Your task to perform on an android device: Open battery settings Image 0: 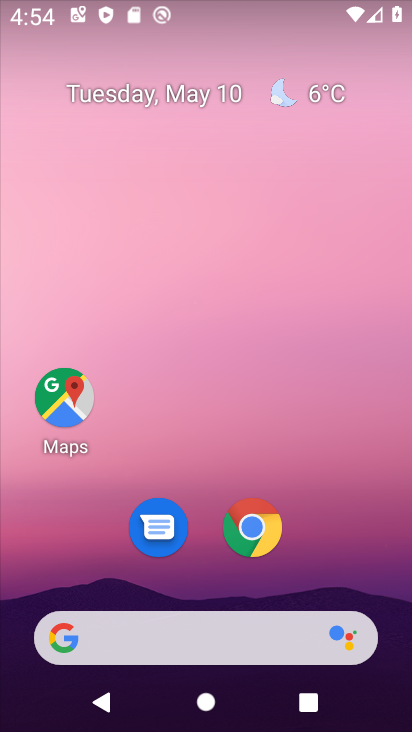
Step 0: drag from (299, 590) to (203, 33)
Your task to perform on an android device: Open battery settings Image 1: 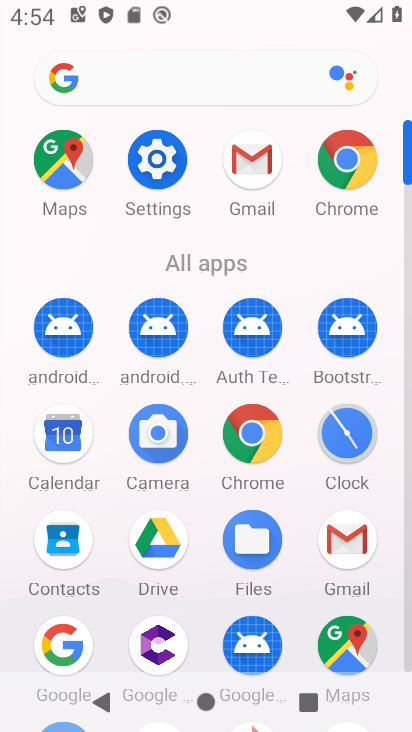
Step 1: click (166, 161)
Your task to perform on an android device: Open battery settings Image 2: 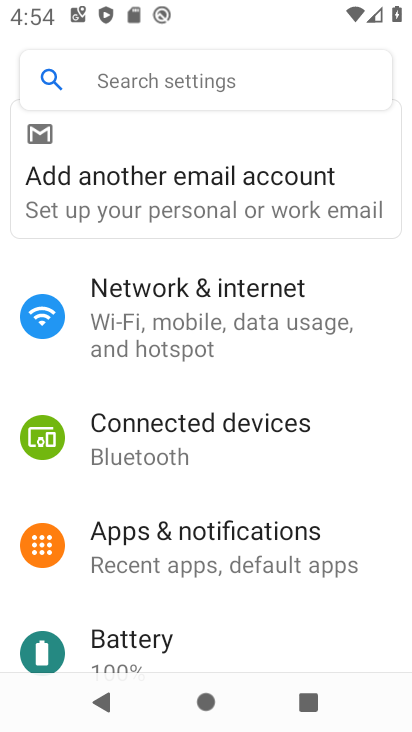
Step 2: click (146, 645)
Your task to perform on an android device: Open battery settings Image 3: 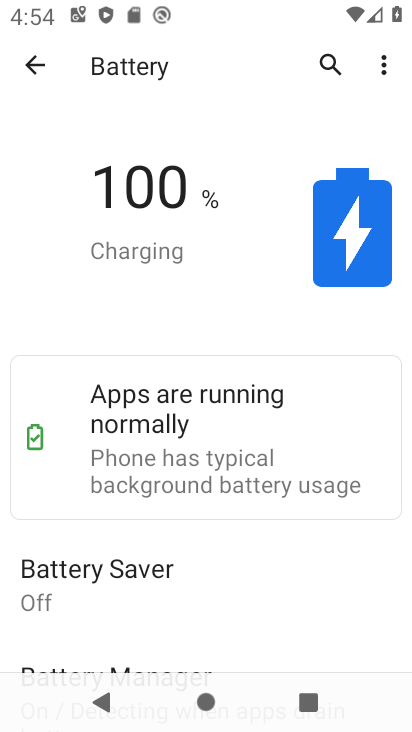
Step 3: task complete